Your task to perform on an android device: Go to Google maps Image 0: 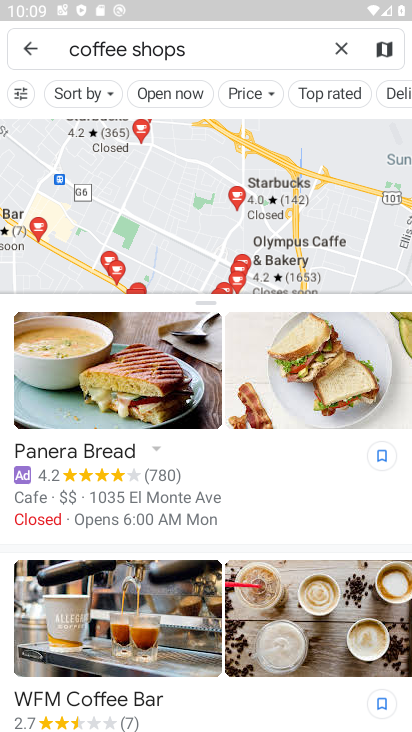
Step 0: task complete